Your task to perform on an android device: Open settings Image 0: 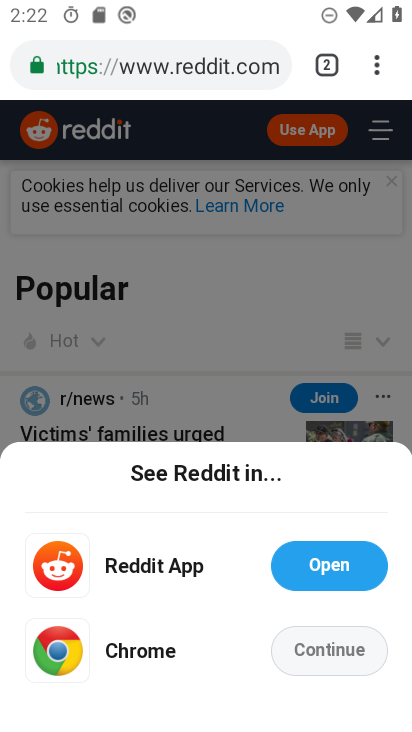
Step 0: press home button
Your task to perform on an android device: Open settings Image 1: 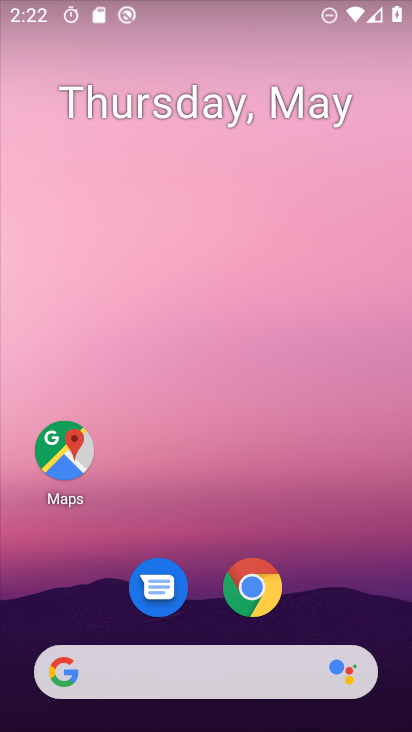
Step 1: drag from (231, 508) to (268, 178)
Your task to perform on an android device: Open settings Image 2: 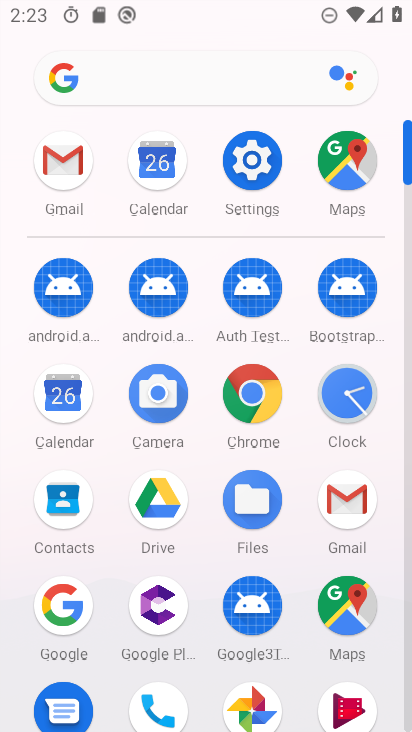
Step 2: click (253, 179)
Your task to perform on an android device: Open settings Image 3: 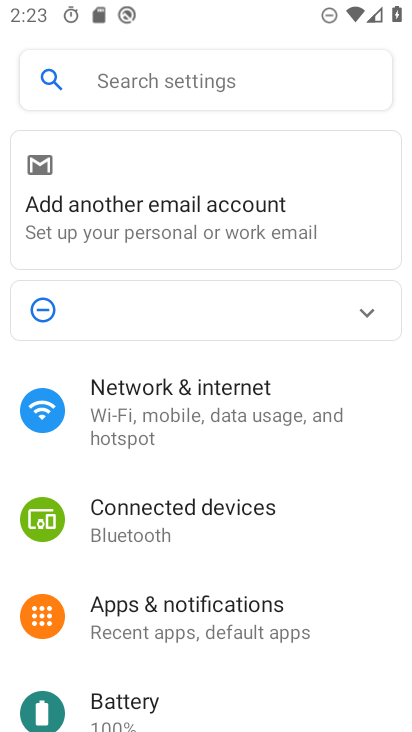
Step 3: task complete